Your task to perform on an android device: allow notifications from all sites in the chrome app Image 0: 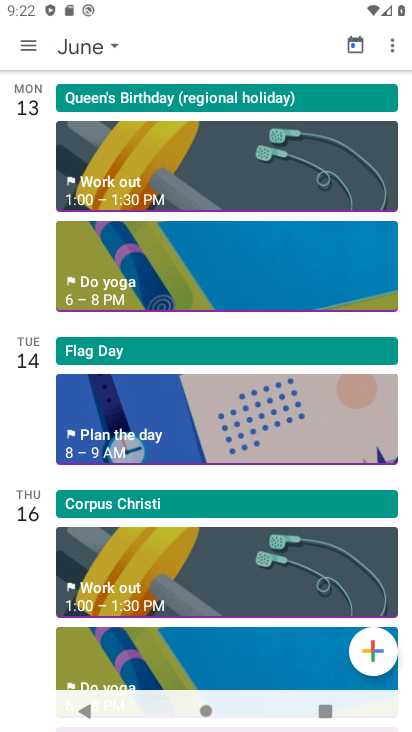
Step 0: press home button
Your task to perform on an android device: allow notifications from all sites in the chrome app Image 1: 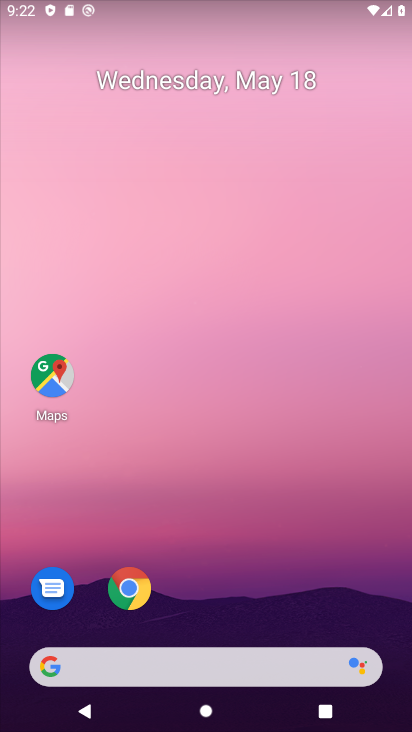
Step 1: drag from (268, 686) to (218, 230)
Your task to perform on an android device: allow notifications from all sites in the chrome app Image 2: 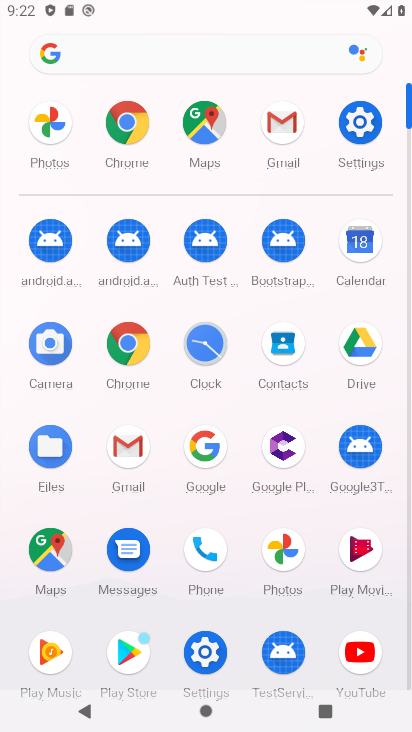
Step 2: click (222, 219)
Your task to perform on an android device: allow notifications from all sites in the chrome app Image 3: 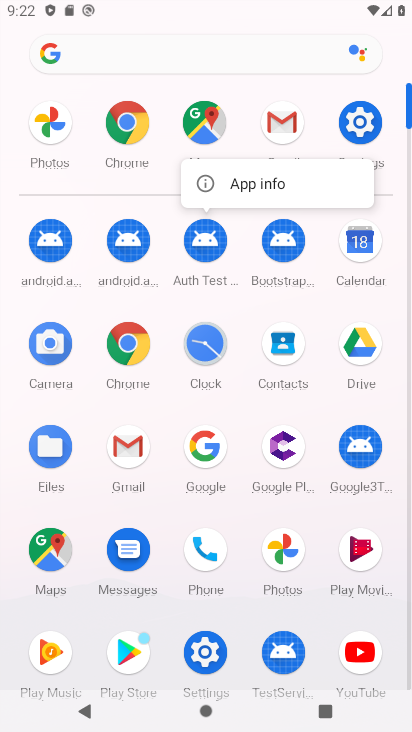
Step 3: click (133, 357)
Your task to perform on an android device: allow notifications from all sites in the chrome app Image 4: 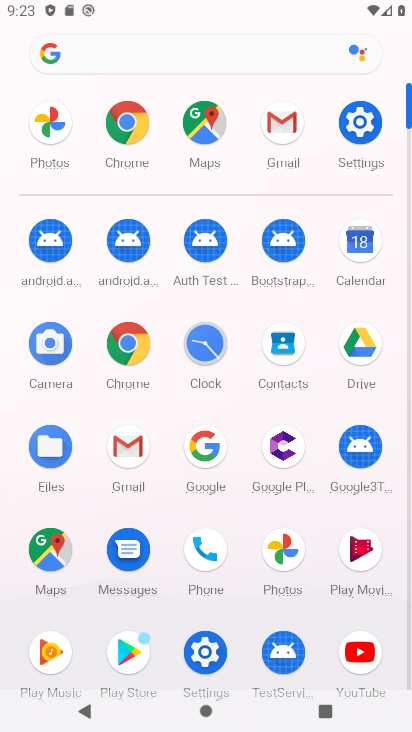
Step 4: click (114, 120)
Your task to perform on an android device: allow notifications from all sites in the chrome app Image 5: 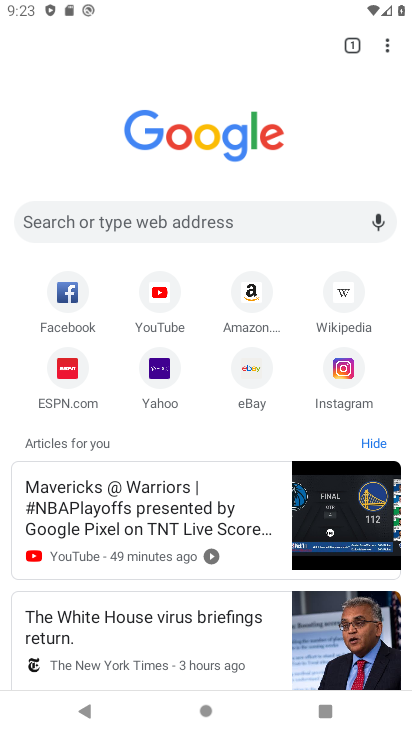
Step 5: click (396, 55)
Your task to perform on an android device: allow notifications from all sites in the chrome app Image 6: 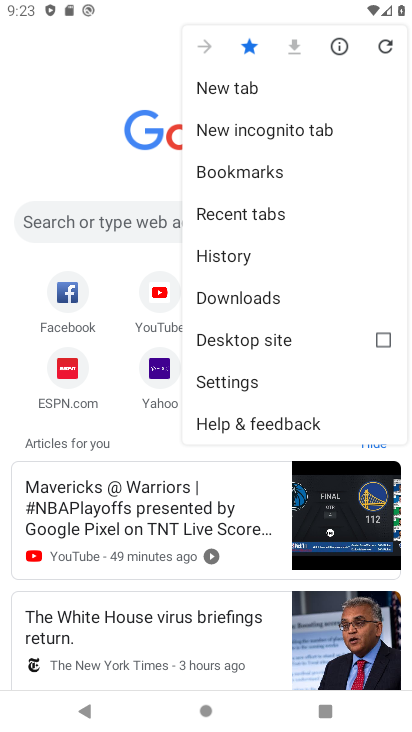
Step 6: click (232, 384)
Your task to perform on an android device: allow notifications from all sites in the chrome app Image 7: 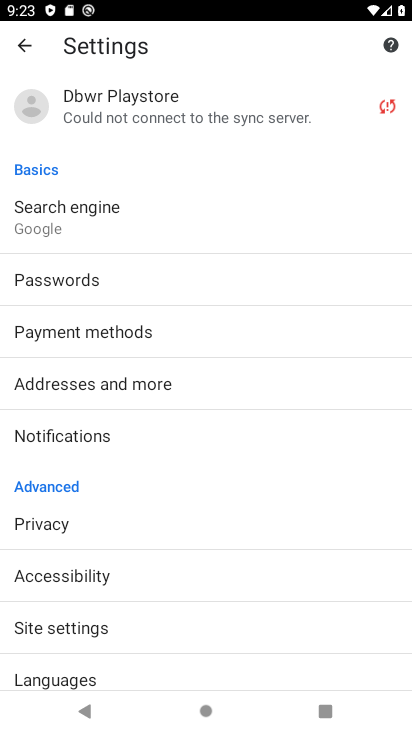
Step 7: click (94, 644)
Your task to perform on an android device: allow notifications from all sites in the chrome app Image 8: 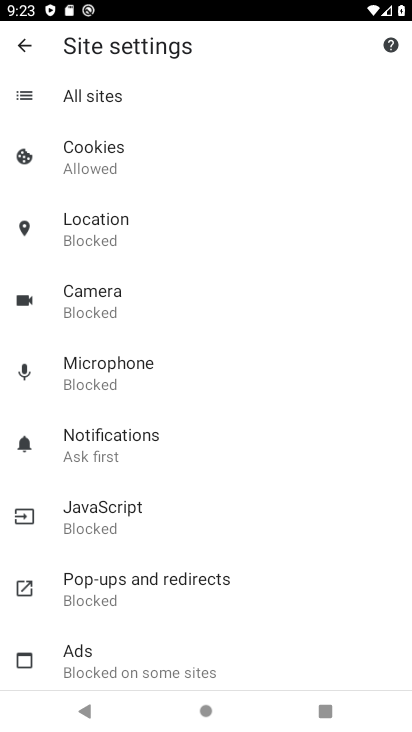
Step 8: click (94, 432)
Your task to perform on an android device: allow notifications from all sites in the chrome app Image 9: 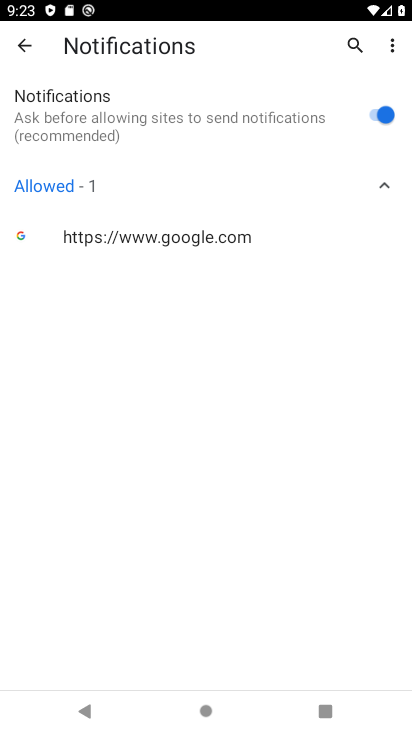
Step 9: click (366, 110)
Your task to perform on an android device: allow notifications from all sites in the chrome app Image 10: 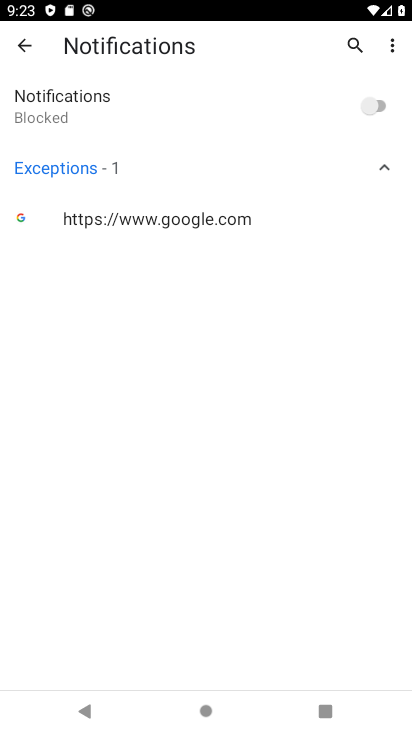
Step 10: click (366, 109)
Your task to perform on an android device: allow notifications from all sites in the chrome app Image 11: 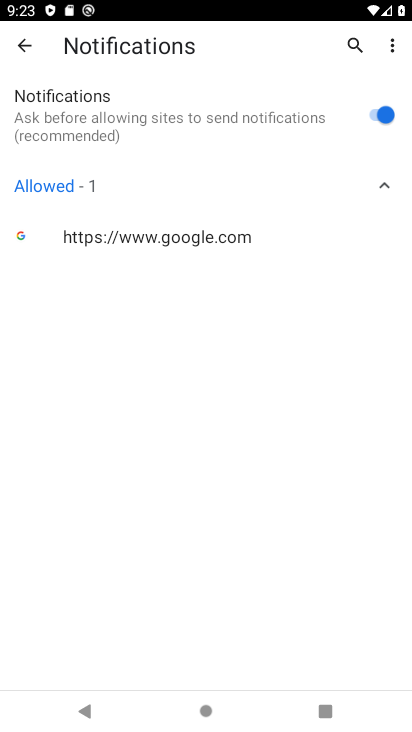
Step 11: task complete